Your task to perform on an android device: What is the recent news? Image 0: 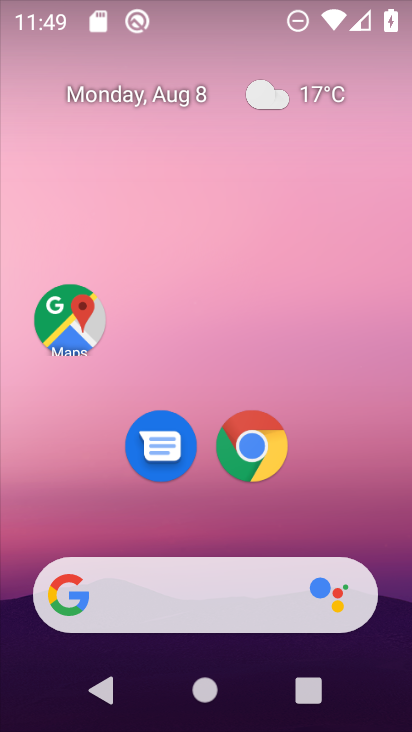
Step 0: drag from (5, 257) to (372, 296)
Your task to perform on an android device: What is the recent news? Image 1: 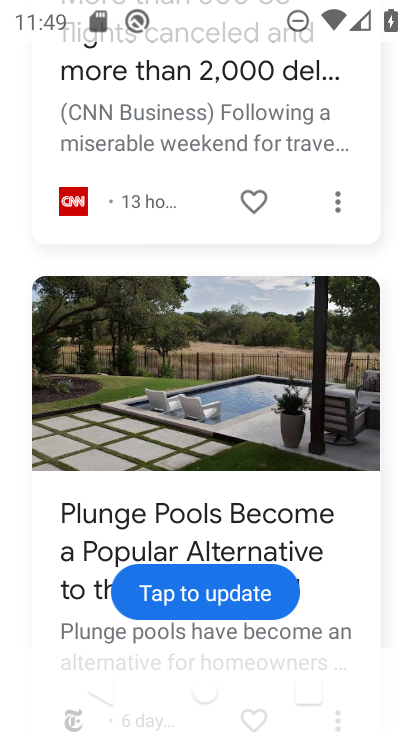
Step 1: task complete